Your task to perform on an android device: toggle airplane mode Image 0: 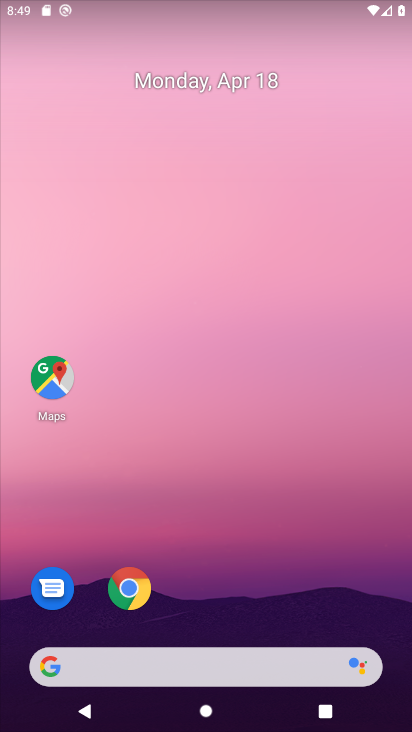
Step 0: drag from (252, 6) to (272, 408)
Your task to perform on an android device: toggle airplane mode Image 1: 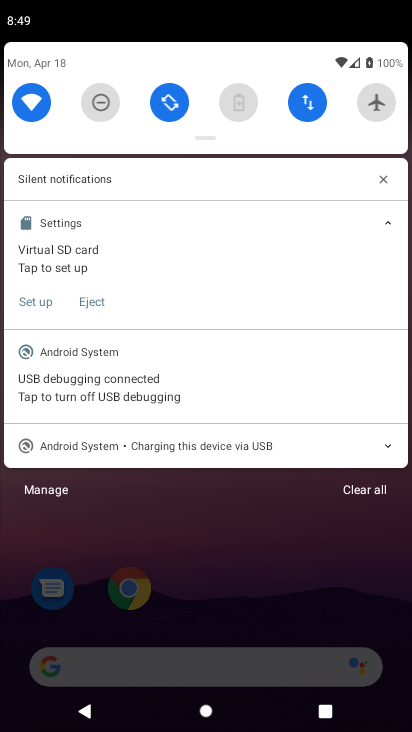
Step 1: click (360, 111)
Your task to perform on an android device: toggle airplane mode Image 2: 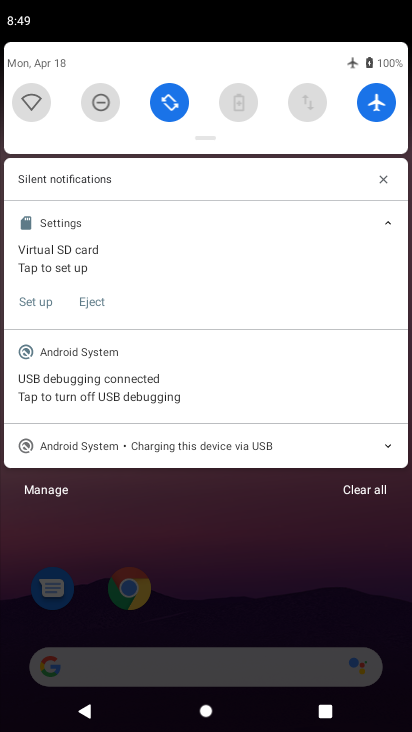
Step 2: task complete